Your task to perform on an android device: Show me productivity apps on the Play Store Image 0: 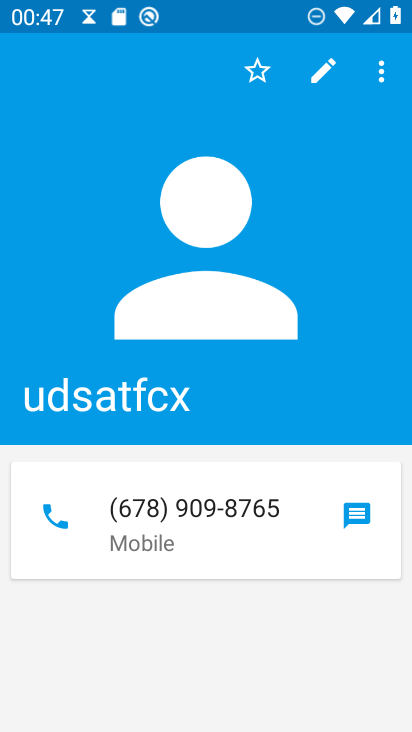
Step 0: press home button
Your task to perform on an android device: Show me productivity apps on the Play Store Image 1: 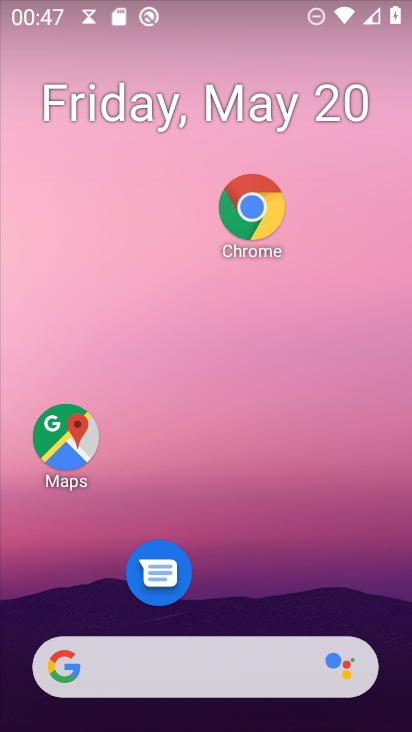
Step 1: drag from (208, 598) to (244, 68)
Your task to perform on an android device: Show me productivity apps on the Play Store Image 2: 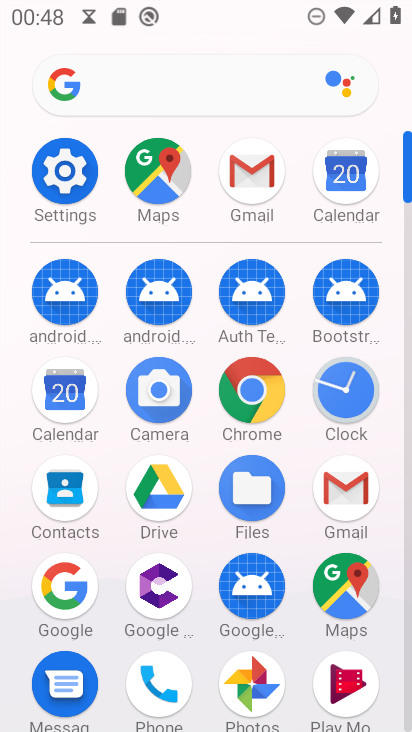
Step 2: drag from (209, 611) to (268, 167)
Your task to perform on an android device: Show me productivity apps on the Play Store Image 3: 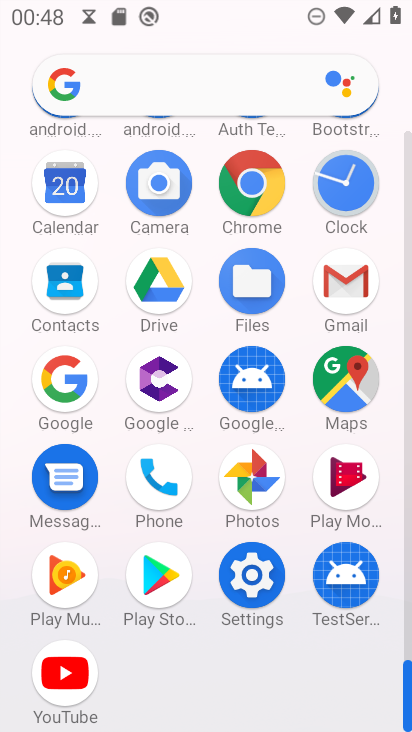
Step 3: click (164, 554)
Your task to perform on an android device: Show me productivity apps on the Play Store Image 4: 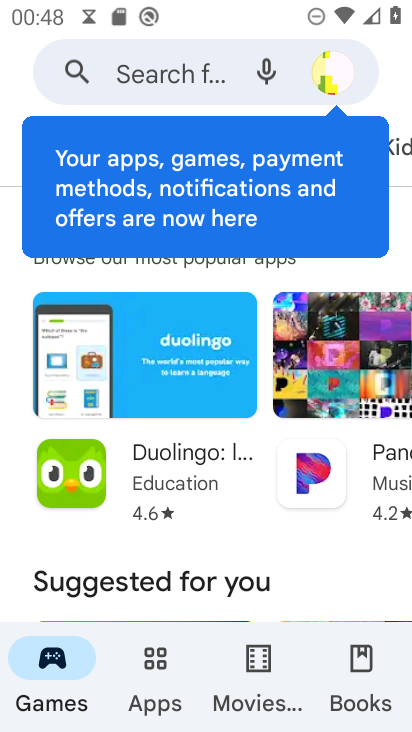
Step 4: click (184, 688)
Your task to perform on an android device: Show me productivity apps on the Play Store Image 5: 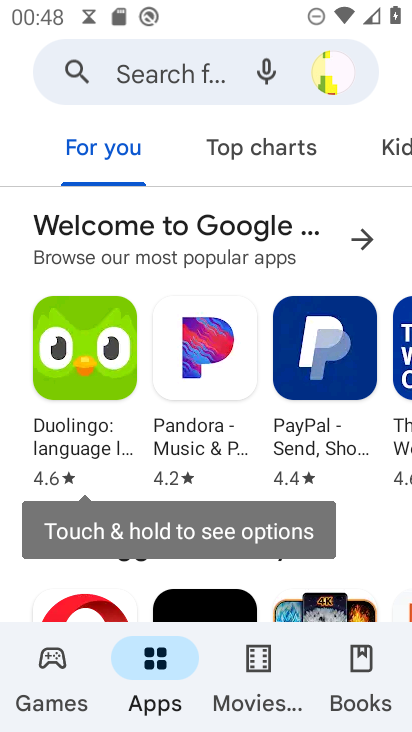
Step 5: drag from (368, 157) to (35, 178)
Your task to perform on an android device: Show me productivity apps on the Play Store Image 6: 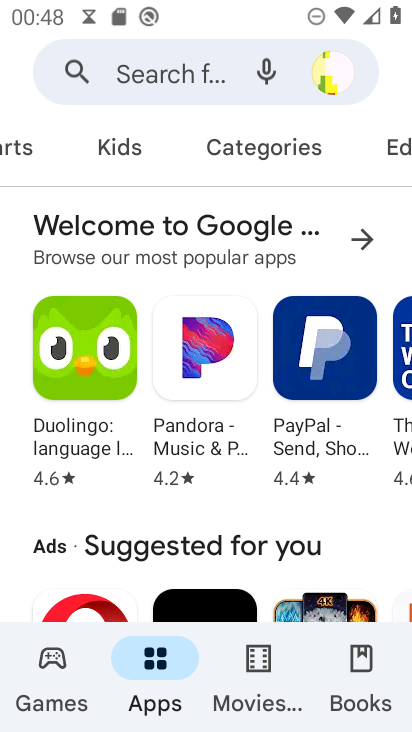
Step 6: click (248, 161)
Your task to perform on an android device: Show me productivity apps on the Play Store Image 7: 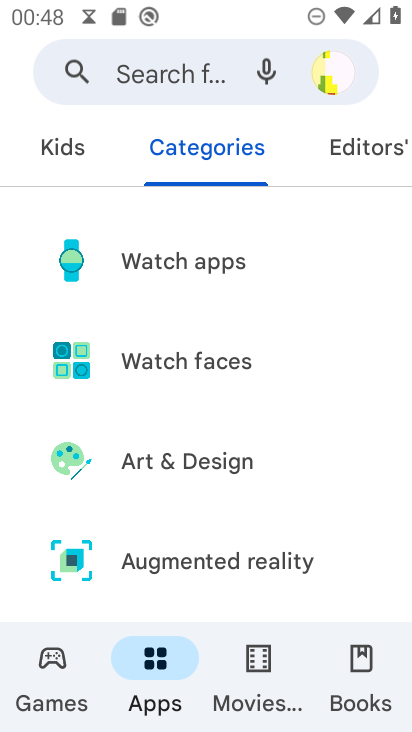
Step 7: drag from (231, 507) to (204, 280)
Your task to perform on an android device: Show me productivity apps on the Play Store Image 8: 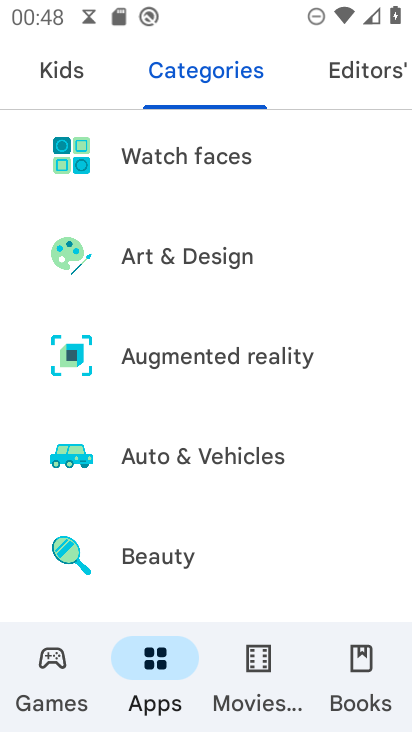
Step 8: drag from (225, 505) to (181, 230)
Your task to perform on an android device: Show me productivity apps on the Play Store Image 9: 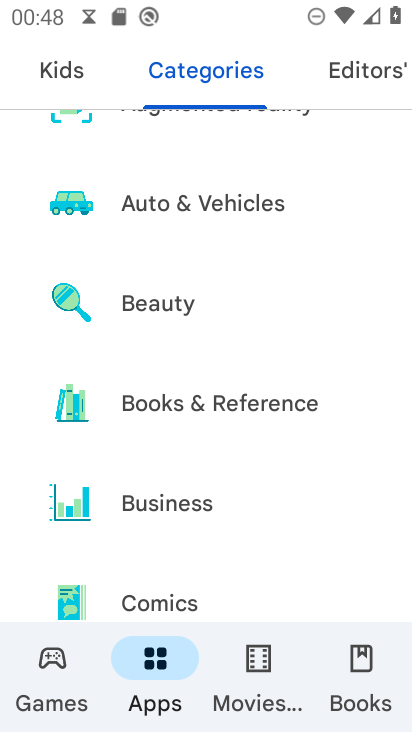
Step 9: drag from (207, 550) to (196, 229)
Your task to perform on an android device: Show me productivity apps on the Play Store Image 10: 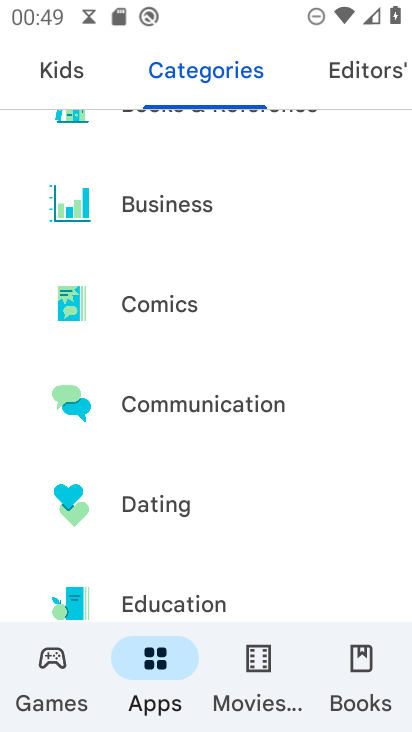
Step 10: drag from (236, 540) to (247, 261)
Your task to perform on an android device: Show me productivity apps on the Play Store Image 11: 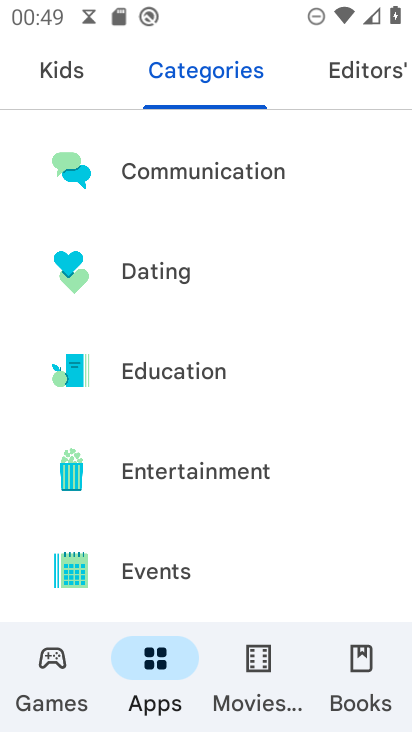
Step 11: drag from (140, 518) to (133, 108)
Your task to perform on an android device: Show me productivity apps on the Play Store Image 12: 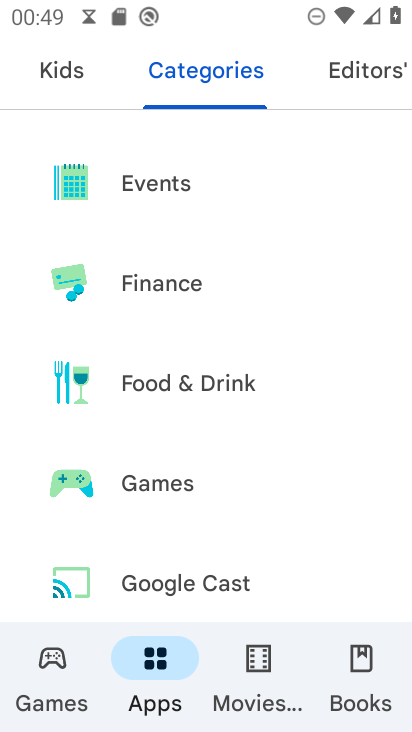
Step 12: drag from (168, 577) to (161, 254)
Your task to perform on an android device: Show me productivity apps on the Play Store Image 13: 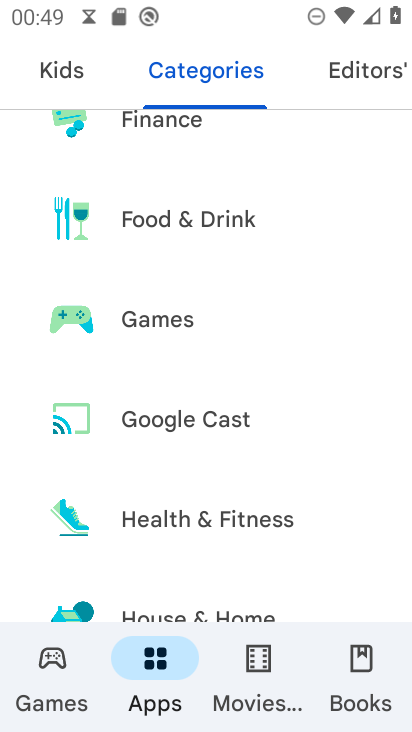
Step 13: drag from (214, 542) to (197, 187)
Your task to perform on an android device: Show me productivity apps on the Play Store Image 14: 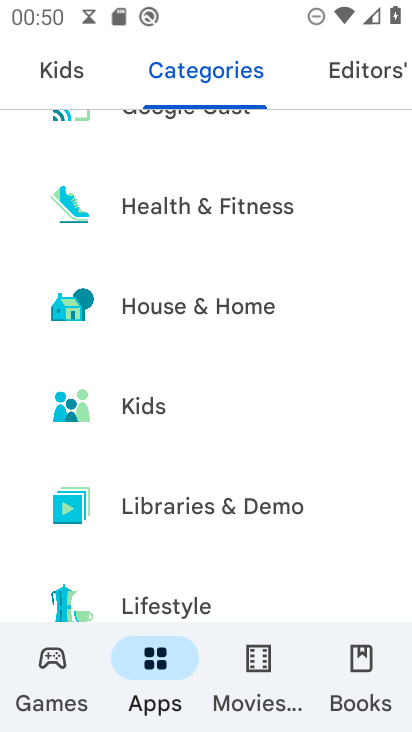
Step 14: drag from (175, 529) to (150, 120)
Your task to perform on an android device: Show me productivity apps on the Play Store Image 15: 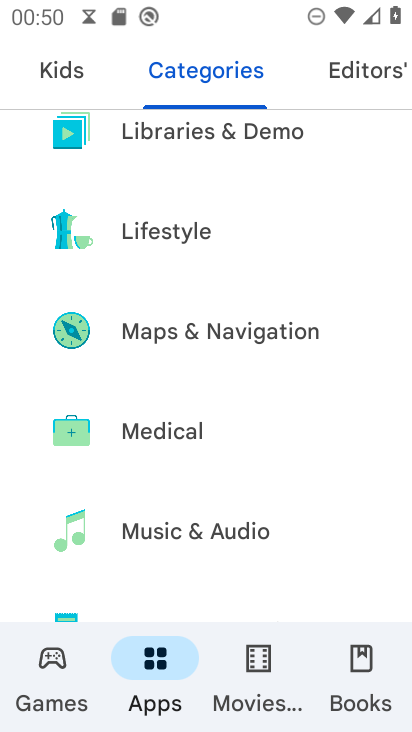
Step 15: drag from (208, 559) to (182, 121)
Your task to perform on an android device: Show me productivity apps on the Play Store Image 16: 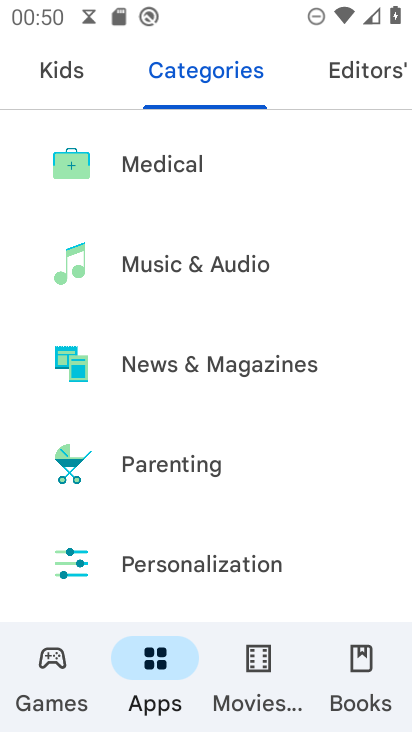
Step 16: drag from (273, 528) to (248, 213)
Your task to perform on an android device: Show me productivity apps on the Play Store Image 17: 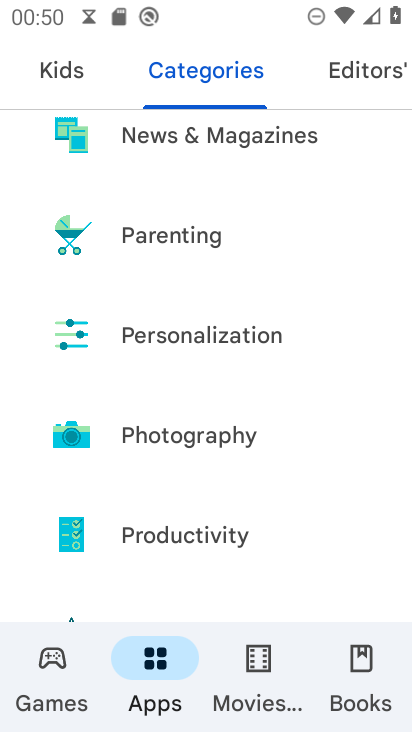
Step 17: click (210, 535)
Your task to perform on an android device: Show me productivity apps on the Play Store Image 18: 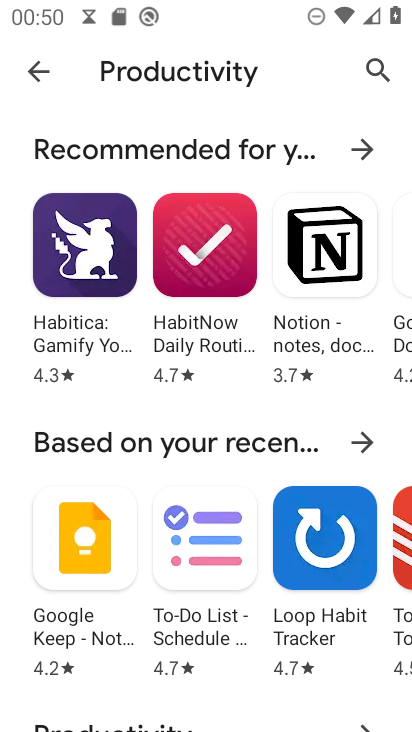
Step 18: task complete